Your task to perform on an android device: Go to ESPN.com Image 0: 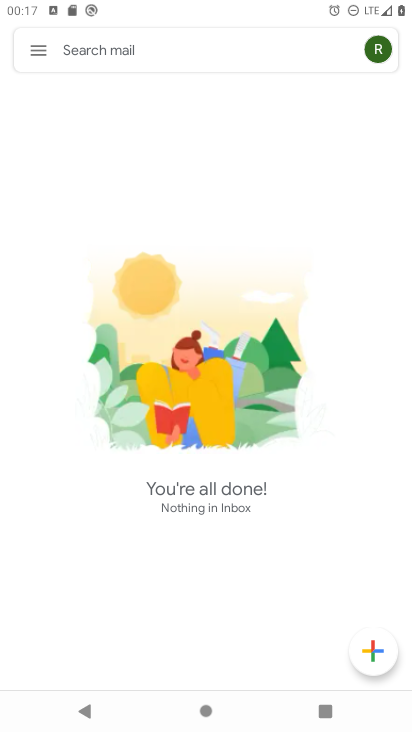
Step 0: press home button
Your task to perform on an android device: Go to ESPN.com Image 1: 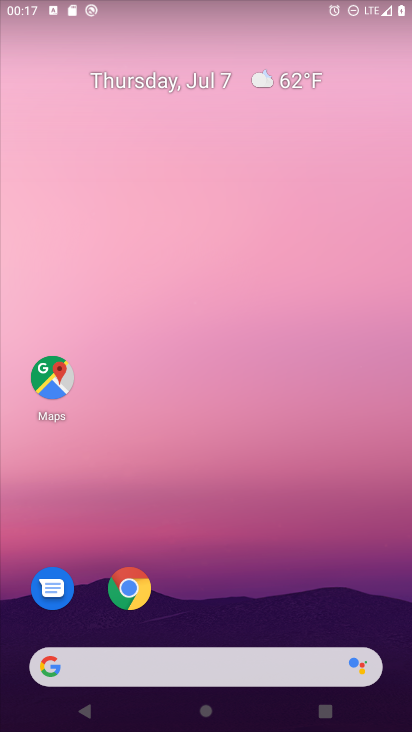
Step 1: click (134, 587)
Your task to perform on an android device: Go to ESPN.com Image 2: 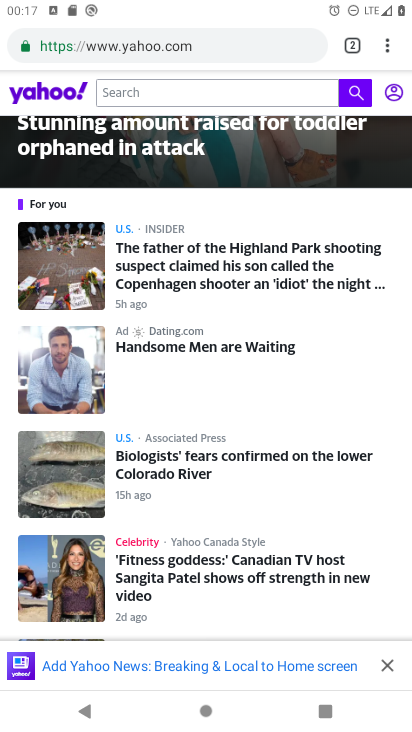
Step 2: click (227, 40)
Your task to perform on an android device: Go to ESPN.com Image 3: 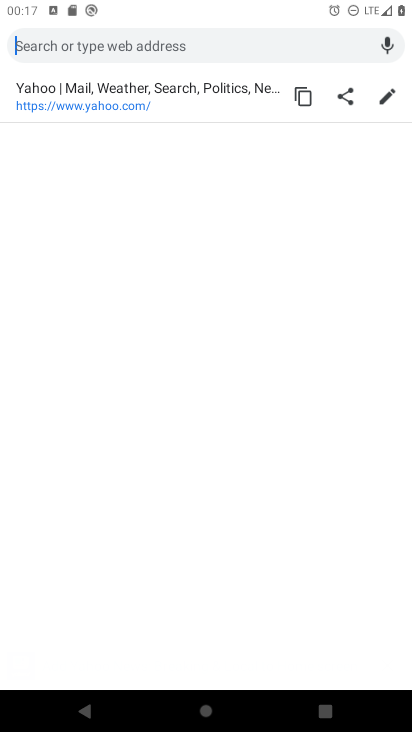
Step 3: type "ESPN.com"
Your task to perform on an android device: Go to ESPN.com Image 4: 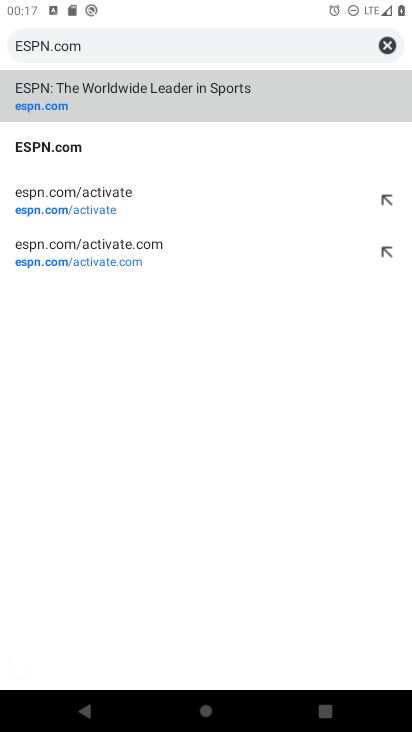
Step 4: click (75, 96)
Your task to perform on an android device: Go to ESPN.com Image 5: 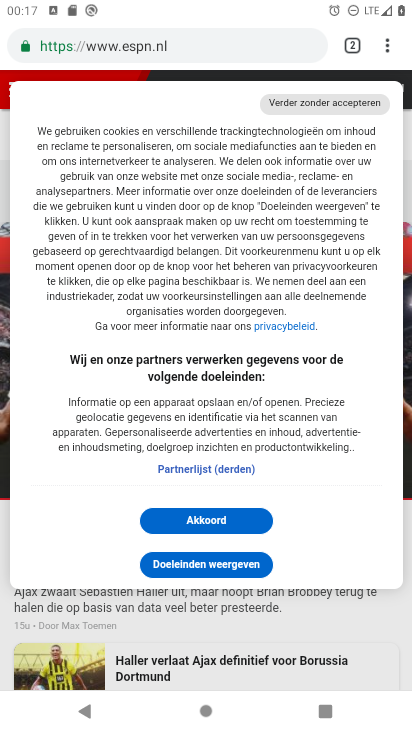
Step 5: drag from (218, 163) to (204, 420)
Your task to perform on an android device: Go to ESPN.com Image 6: 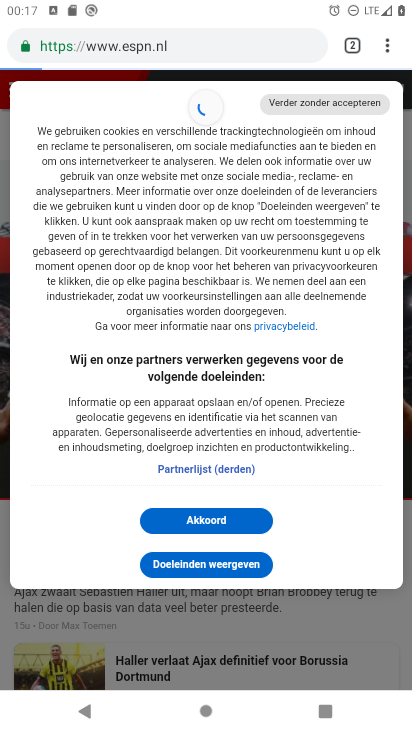
Step 6: click (192, 514)
Your task to perform on an android device: Go to ESPN.com Image 7: 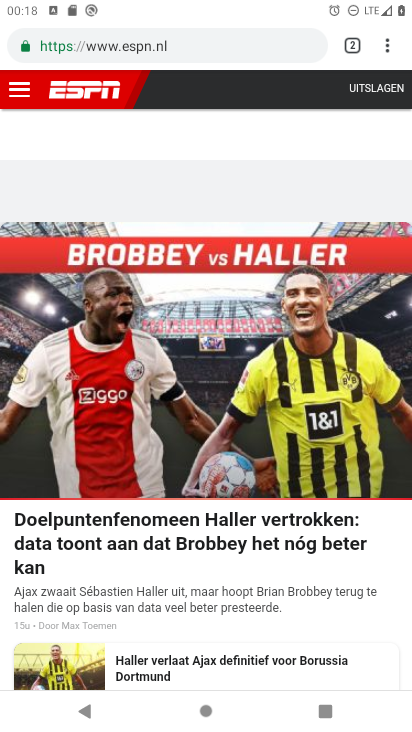
Step 7: task complete